Your task to perform on an android device: Go to internet settings Image 0: 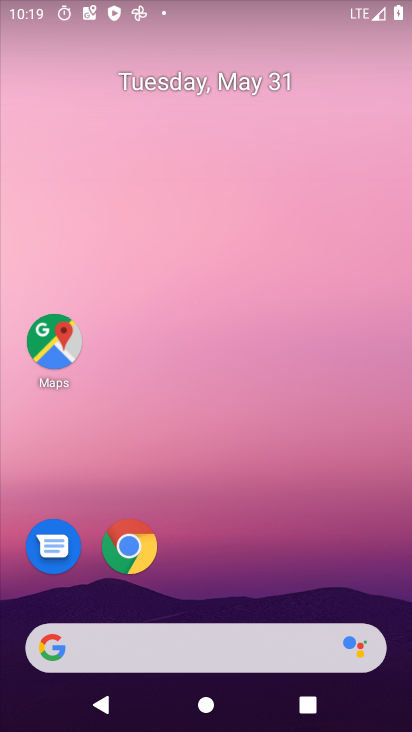
Step 0: drag from (246, 554) to (319, 16)
Your task to perform on an android device: Go to internet settings Image 1: 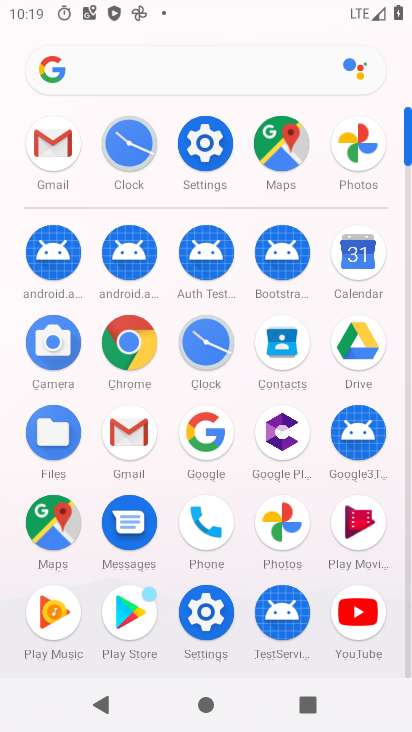
Step 1: click (206, 131)
Your task to perform on an android device: Go to internet settings Image 2: 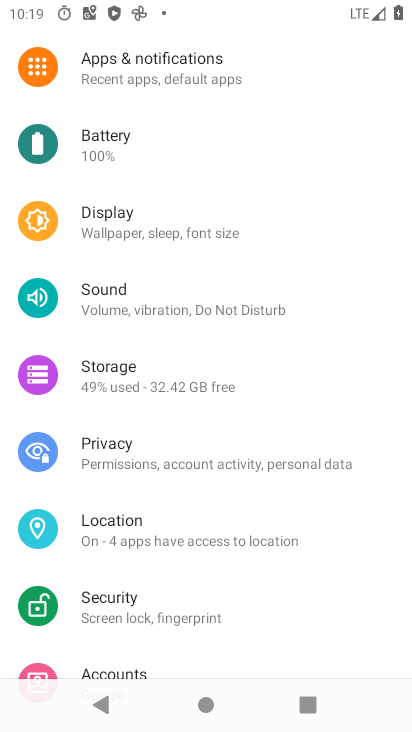
Step 2: drag from (213, 85) to (176, 552)
Your task to perform on an android device: Go to internet settings Image 3: 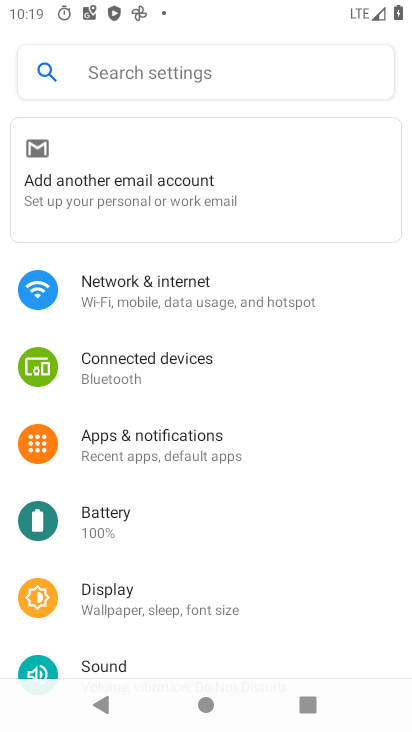
Step 3: click (210, 321)
Your task to perform on an android device: Go to internet settings Image 4: 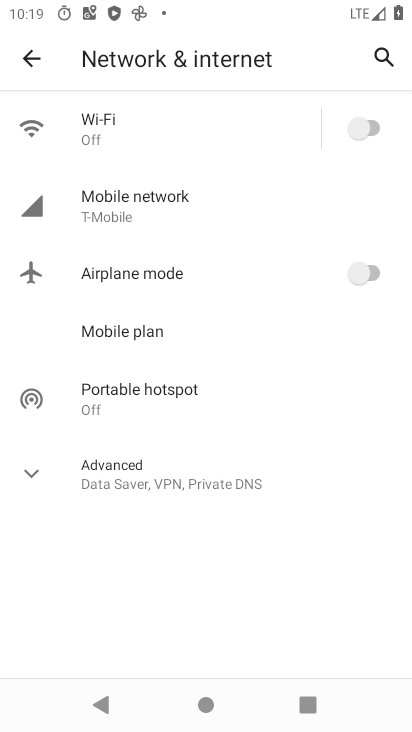
Step 4: task complete